Your task to perform on an android device: Open Maps and search for coffee Image 0: 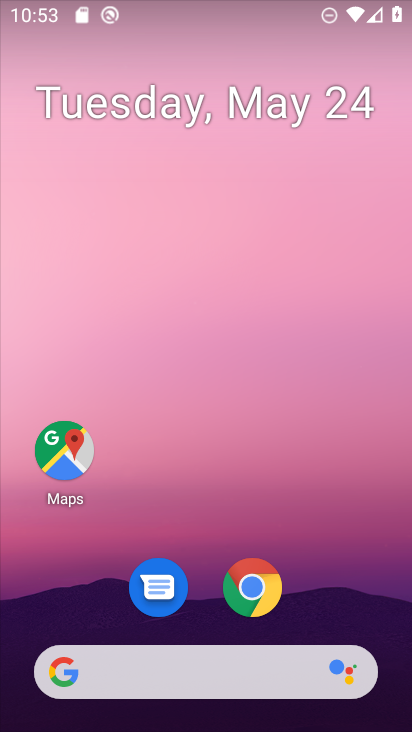
Step 0: click (54, 460)
Your task to perform on an android device: Open Maps and search for coffee Image 1: 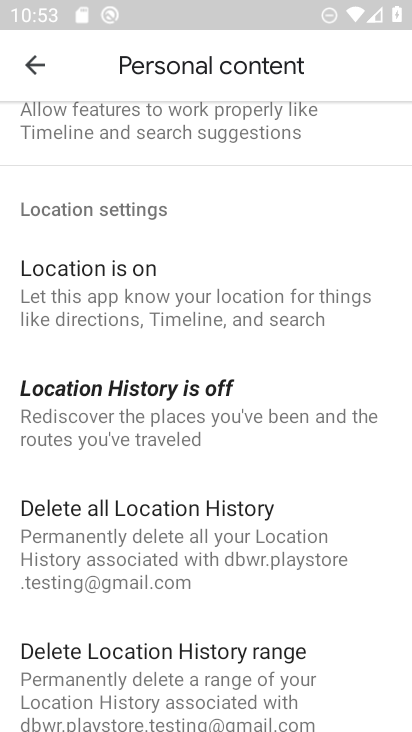
Step 1: click (37, 77)
Your task to perform on an android device: Open Maps and search for coffee Image 2: 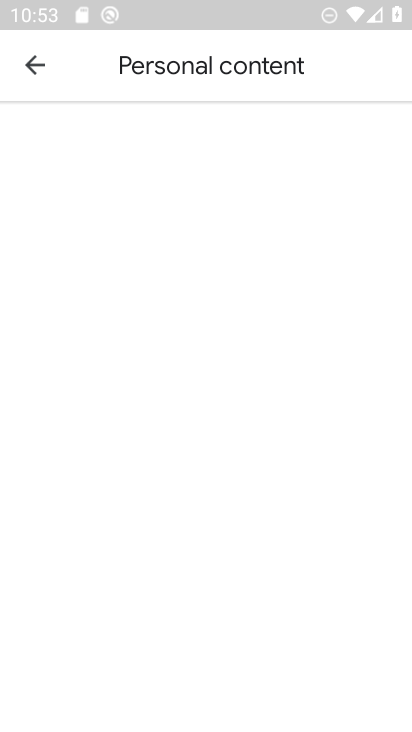
Step 2: click (37, 77)
Your task to perform on an android device: Open Maps and search for coffee Image 3: 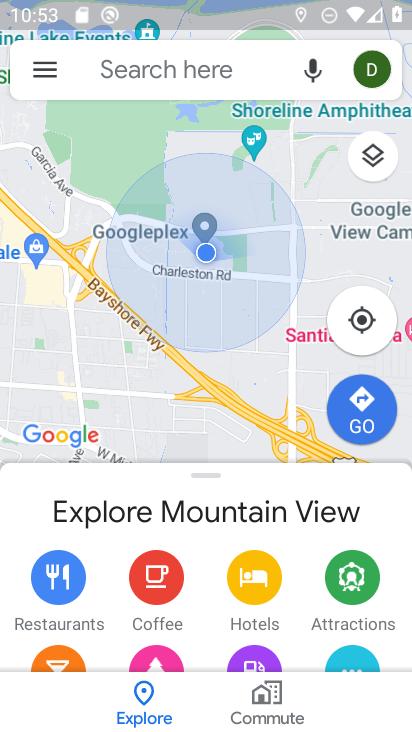
Step 3: click (164, 68)
Your task to perform on an android device: Open Maps and search for coffee Image 4: 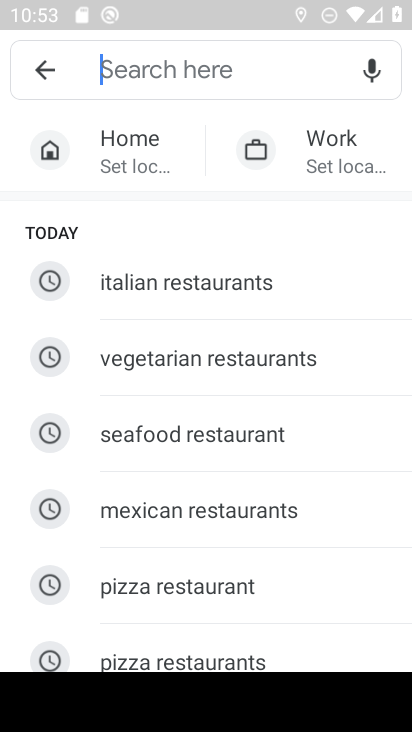
Step 4: type "coffee"
Your task to perform on an android device: Open Maps and search for coffee Image 5: 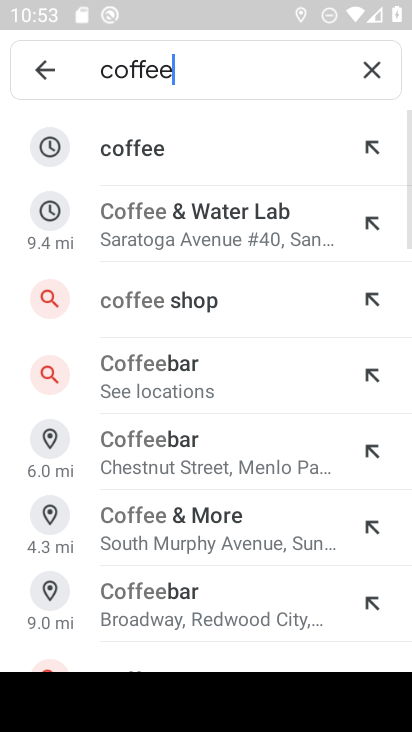
Step 5: click (171, 157)
Your task to perform on an android device: Open Maps and search for coffee Image 6: 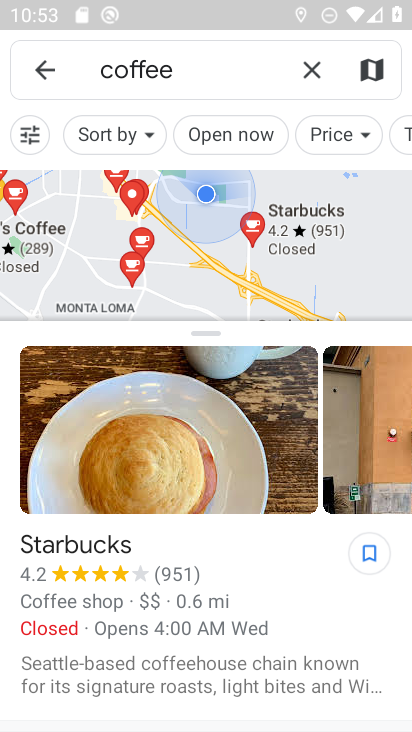
Step 6: task complete